Your task to perform on an android device: change the upload size in google photos Image 0: 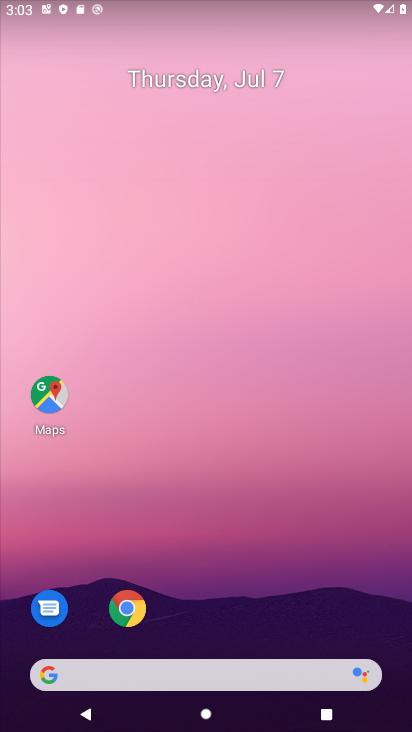
Step 0: drag from (392, 621) to (331, 153)
Your task to perform on an android device: change the upload size in google photos Image 1: 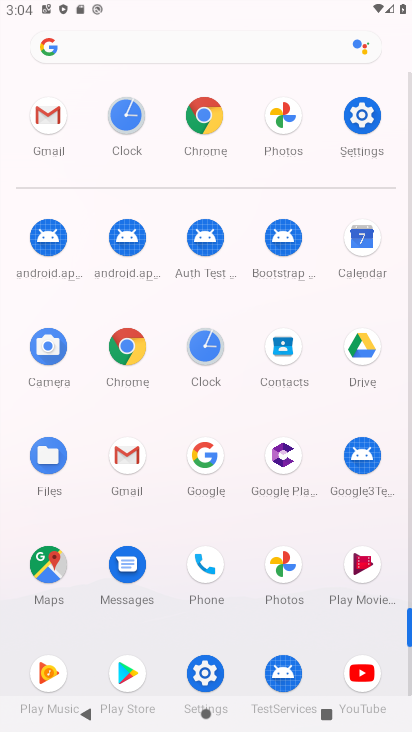
Step 1: click (286, 560)
Your task to perform on an android device: change the upload size in google photos Image 2: 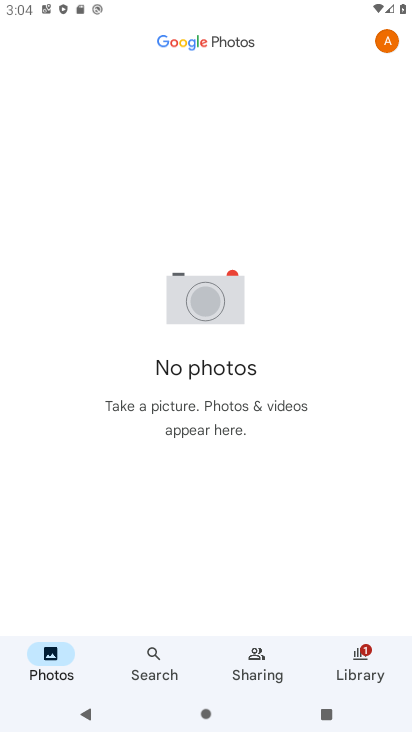
Step 2: click (387, 40)
Your task to perform on an android device: change the upload size in google photos Image 3: 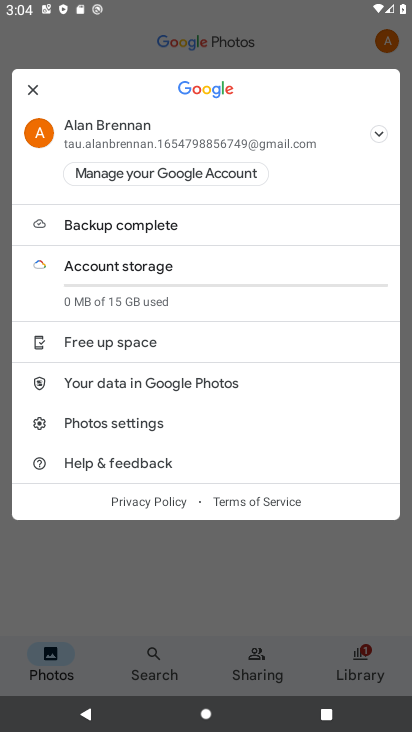
Step 3: click (100, 424)
Your task to perform on an android device: change the upload size in google photos Image 4: 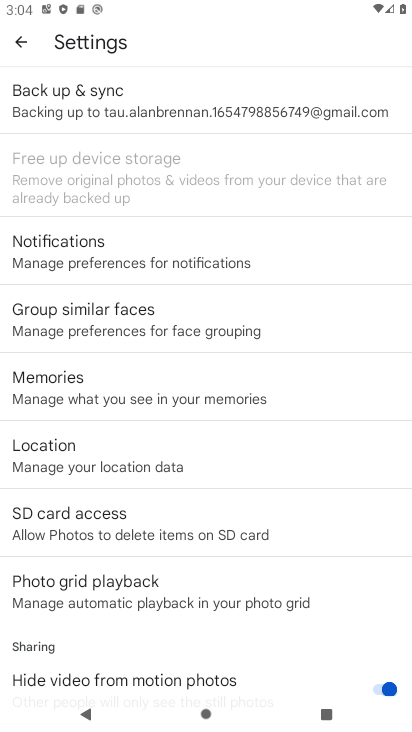
Step 4: click (91, 104)
Your task to perform on an android device: change the upload size in google photos Image 5: 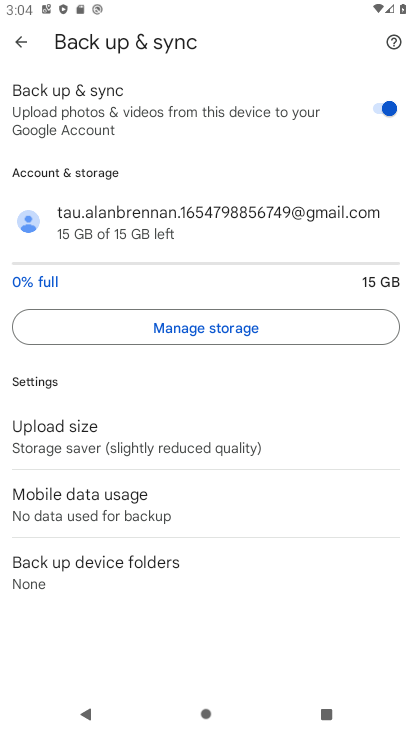
Step 5: click (60, 442)
Your task to perform on an android device: change the upload size in google photos Image 6: 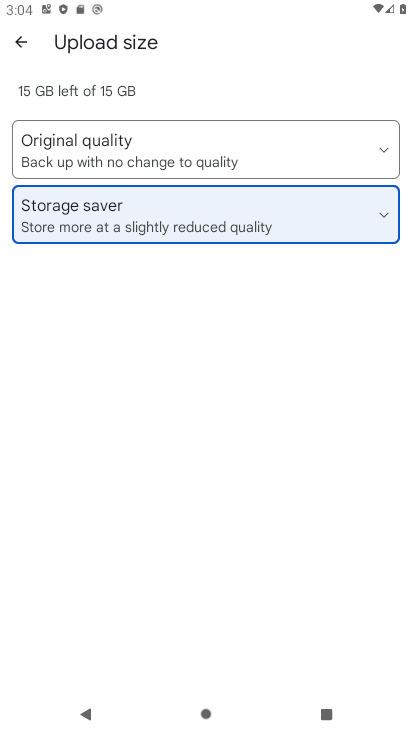
Step 6: click (375, 146)
Your task to perform on an android device: change the upload size in google photos Image 7: 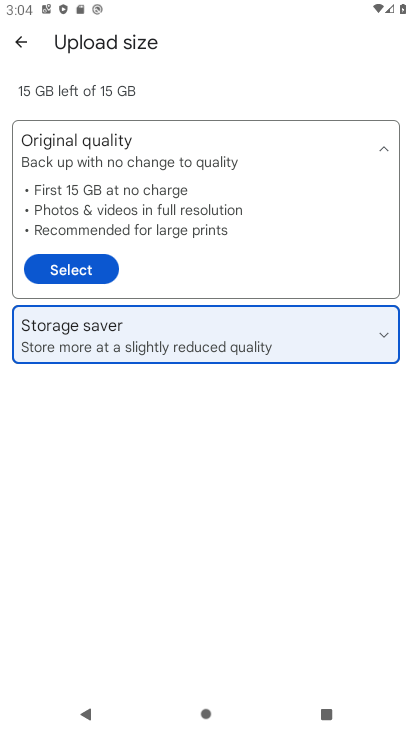
Step 7: click (67, 268)
Your task to perform on an android device: change the upload size in google photos Image 8: 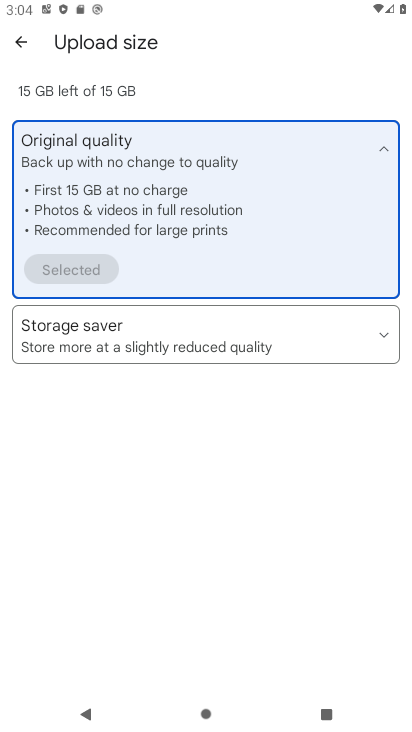
Step 8: task complete